Your task to perform on an android device: Open calendar and show me the first week of next month Image 0: 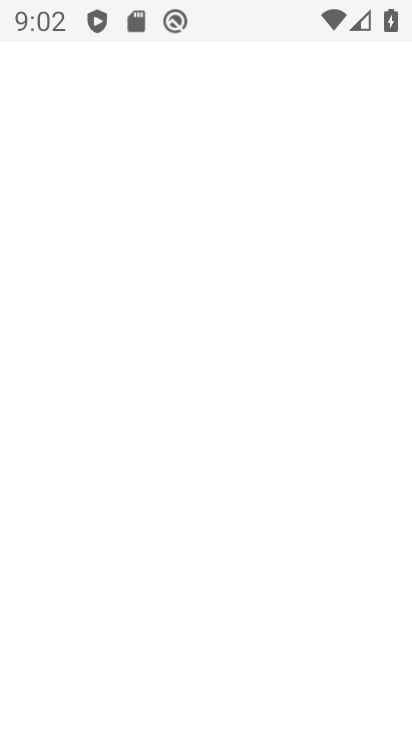
Step 0: click (243, 528)
Your task to perform on an android device: Open calendar and show me the first week of next month Image 1: 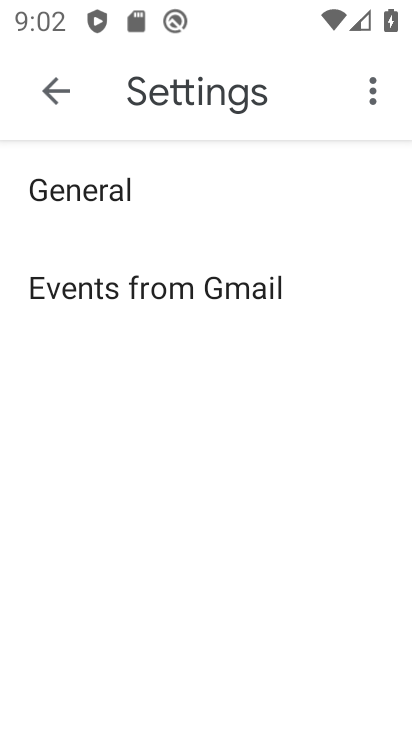
Step 1: press home button
Your task to perform on an android device: Open calendar and show me the first week of next month Image 2: 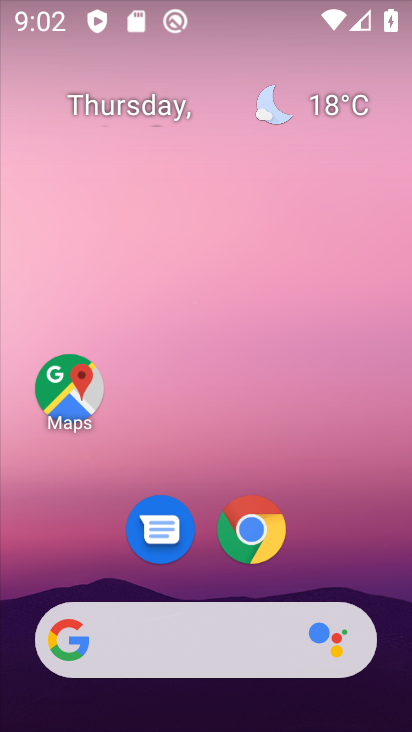
Step 2: drag from (391, 666) to (368, 145)
Your task to perform on an android device: Open calendar and show me the first week of next month Image 3: 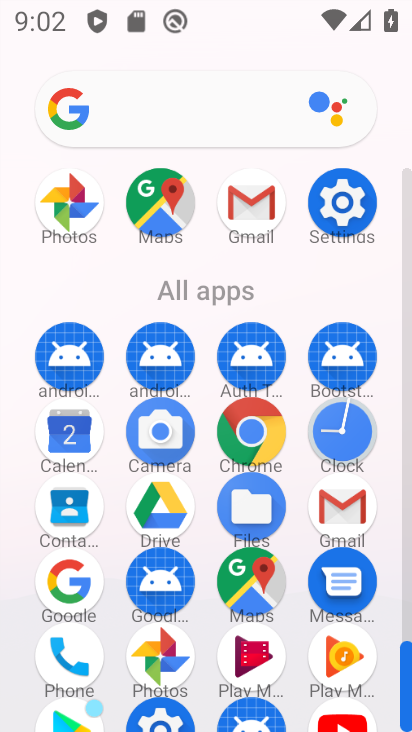
Step 3: click (60, 437)
Your task to perform on an android device: Open calendar and show me the first week of next month Image 4: 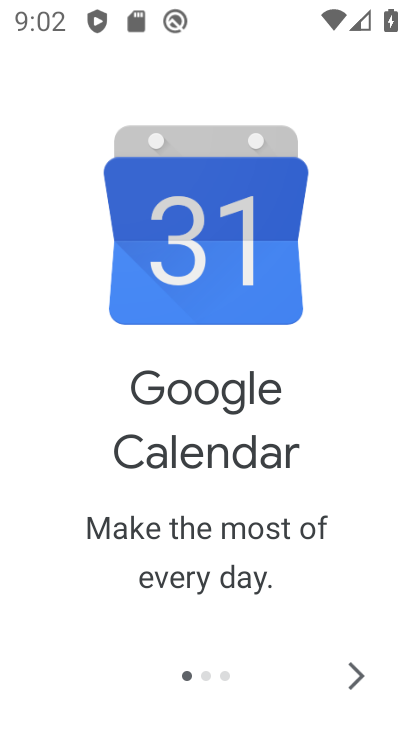
Step 4: click (344, 677)
Your task to perform on an android device: Open calendar and show me the first week of next month Image 5: 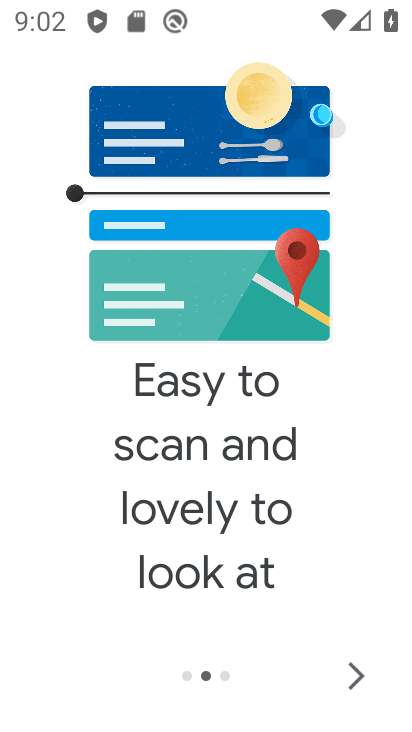
Step 5: click (344, 677)
Your task to perform on an android device: Open calendar and show me the first week of next month Image 6: 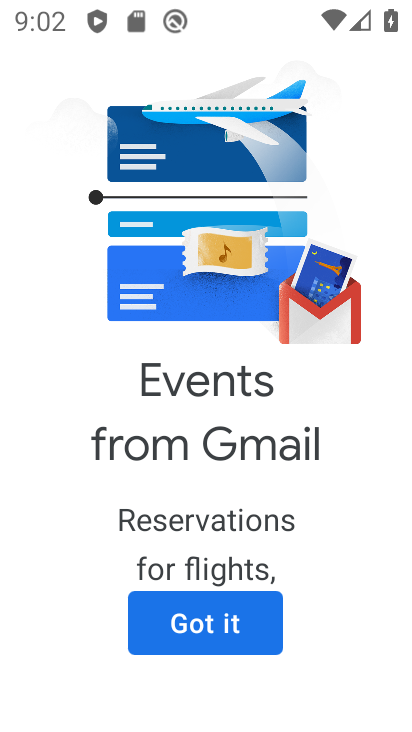
Step 6: click (265, 627)
Your task to perform on an android device: Open calendar and show me the first week of next month Image 7: 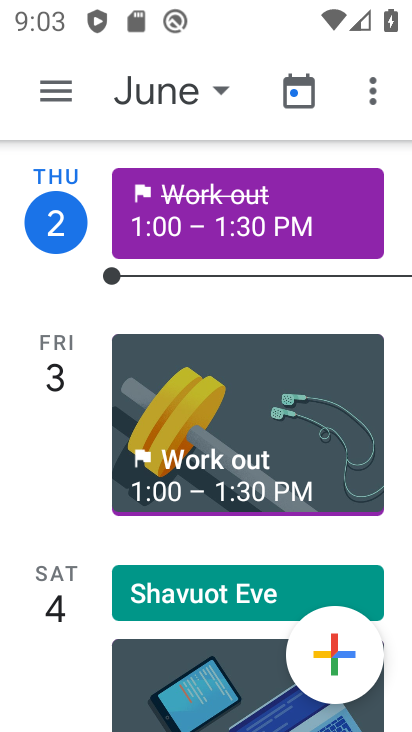
Step 7: click (210, 90)
Your task to perform on an android device: Open calendar and show me the first week of next month Image 8: 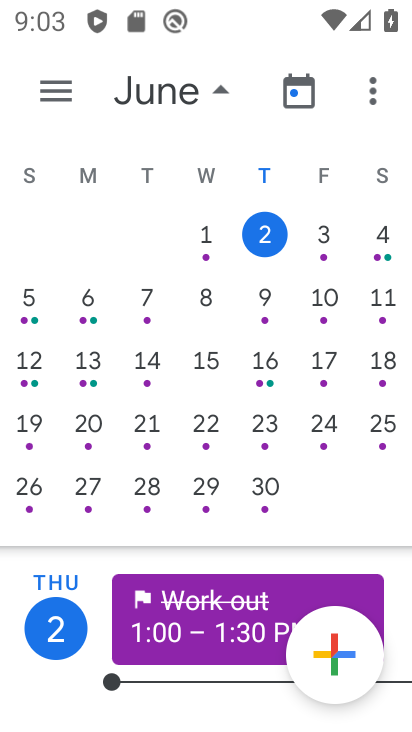
Step 8: drag from (394, 365) to (47, 299)
Your task to perform on an android device: Open calendar and show me the first week of next month Image 9: 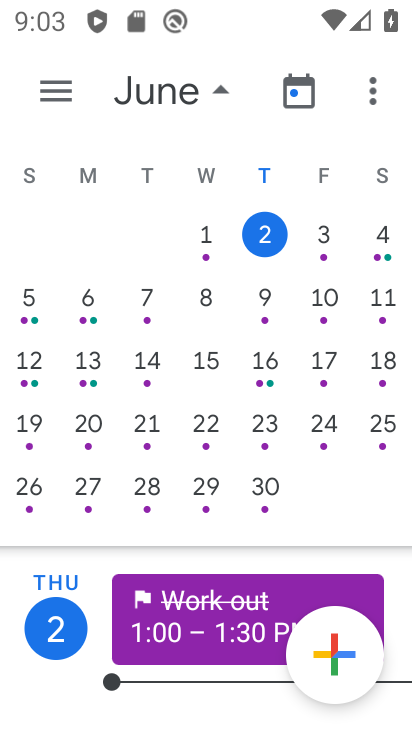
Step 9: drag from (399, 365) to (0, 284)
Your task to perform on an android device: Open calendar and show me the first week of next month Image 10: 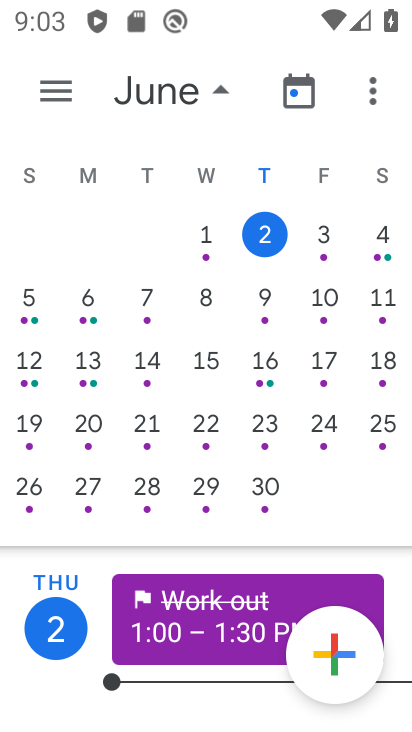
Step 10: drag from (397, 358) to (33, 293)
Your task to perform on an android device: Open calendar and show me the first week of next month Image 11: 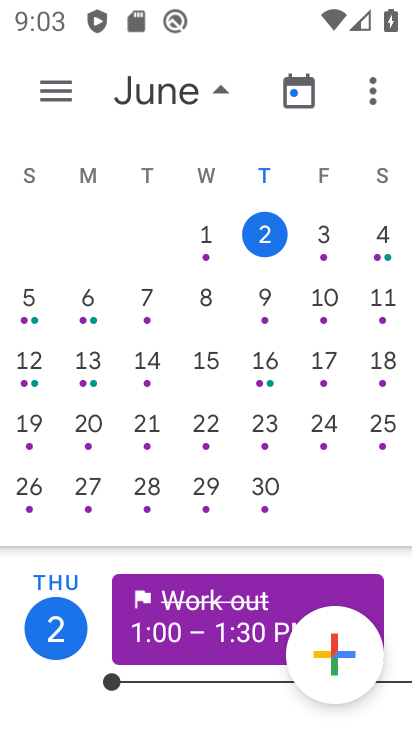
Step 11: drag from (398, 365) to (13, 308)
Your task to perform on an android device: Open calendar and show me the first week of next month Image 12: 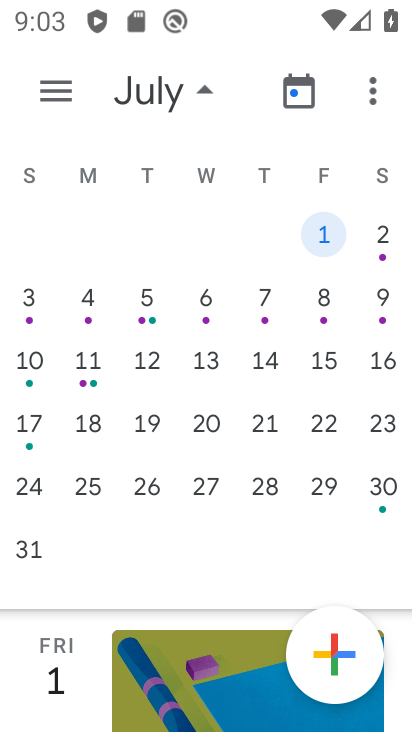
Step 12: click (48, 93)
Your task to perform on an android device: Open calendar and show me the first week of next month Image 13: 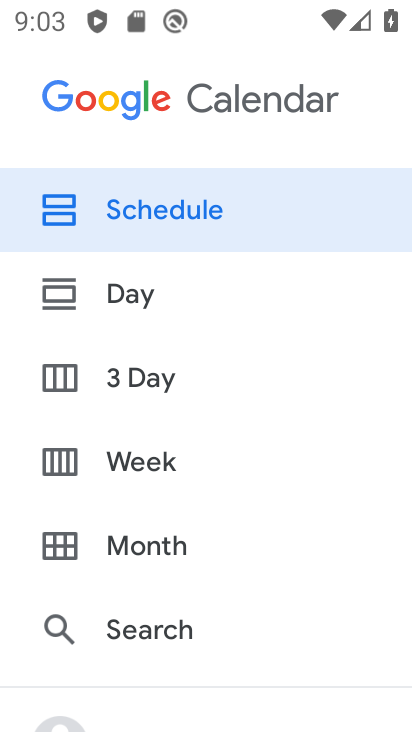
Step 13: click (121, 460)
Your task to perform on an android device: Open calendar and show me the first week of next month Image 14: 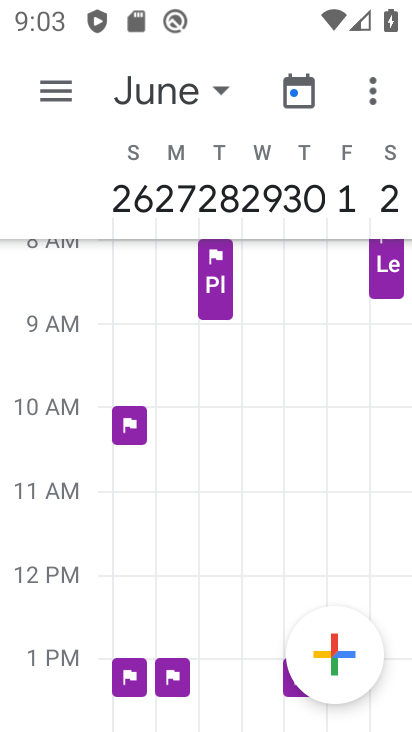
Step 14: task complete